Your task to perform on an android device: Go to Maps Image 0: 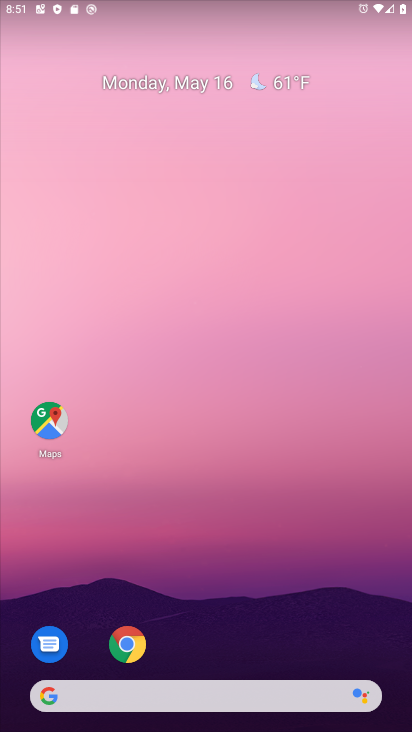
Step 0: click (55, 418)
Your task to perform on an android device: Go to Maps Image 1: 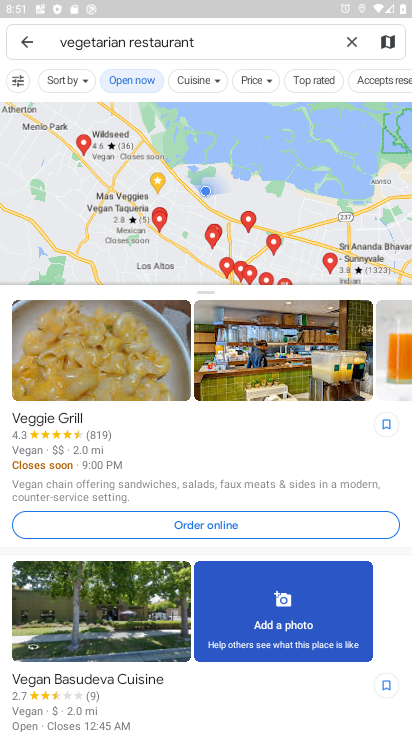
Step 1: task complete